Your task to perform on an android device: When is my next appointment? Image 0: 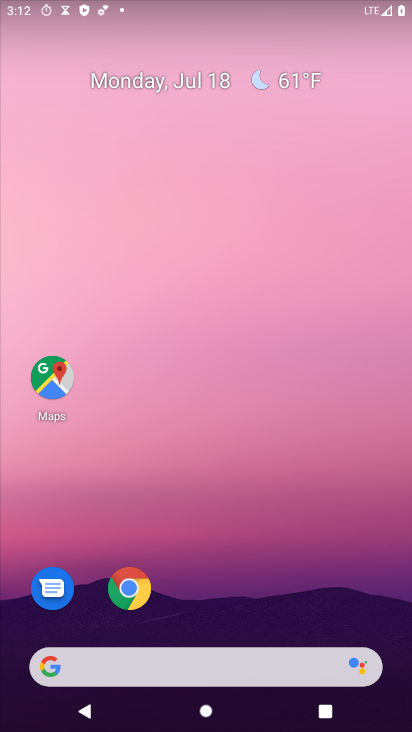
Step 0: drag from (281, 568) to (26, 449)
Your task to perform on an android device: When is my next appointment? Image 1: 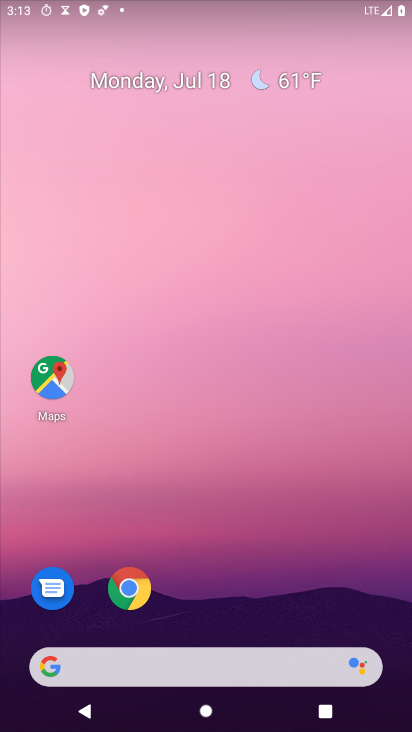
Step 1: drag from (273, 621) to (385, 72)
Your task to perform on an android device: When is my next appointment? Image 2: 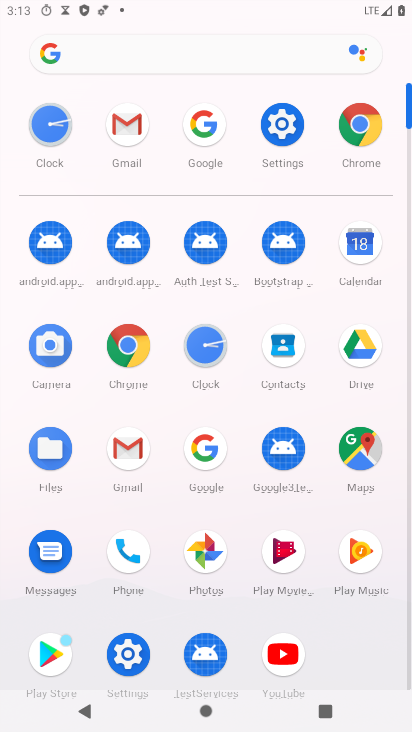
Step 2: click (365, 257)
Your task to perform on an android device: When is my next appointment? Image 3: 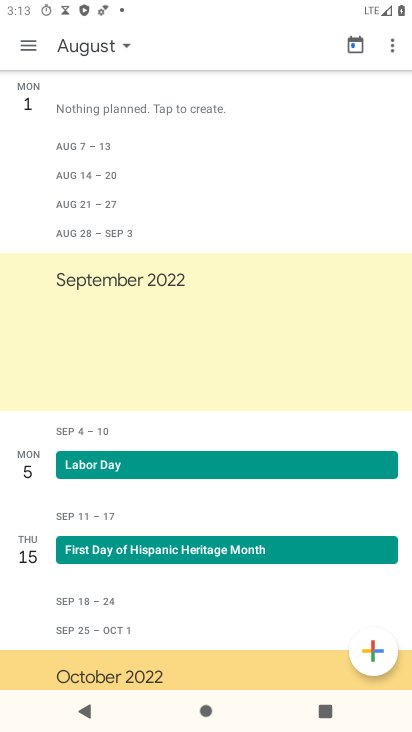
Step 3: click (122, 49)
Your task to perform on an android device: When is my next appointment? Image 4: 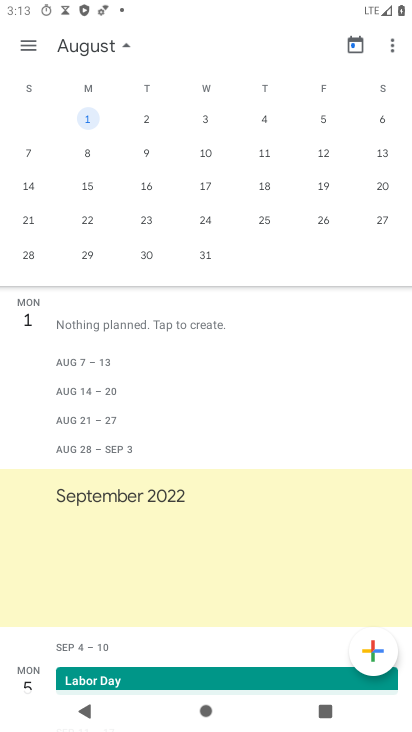
Step 4: task complete